Your task to perform on an android device: Open the map Image 0: 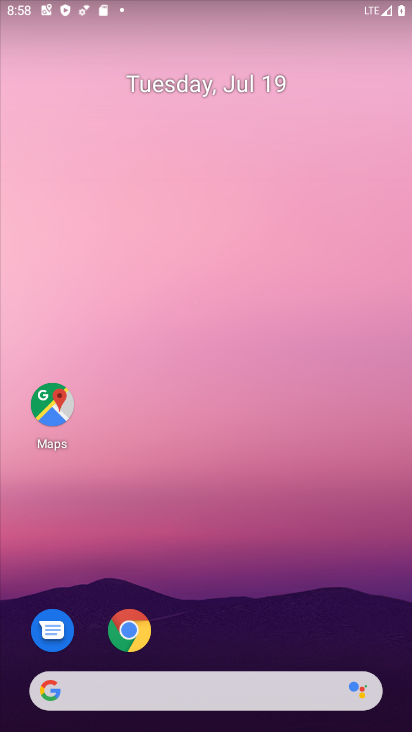
Step 0: click (53, 406)
Your task to perform on an android device: Open the map Image 1: 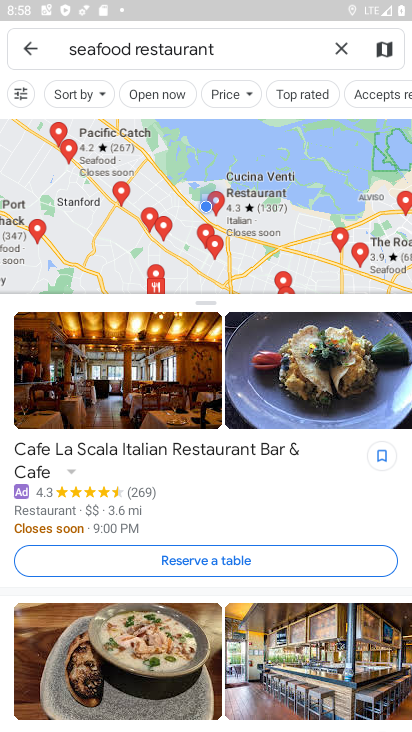
Step 1: task complete